Your task to perform on an android device: delete the emails in spam in the gmail app Image 0: 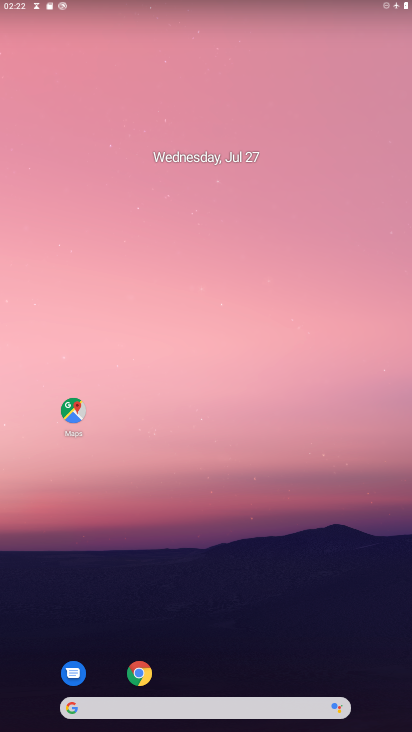
Step 0: drag from (249, 607) to (274, 258)
Your task to perform on an android device: delete the emails in spam in the gmail app Image 1: 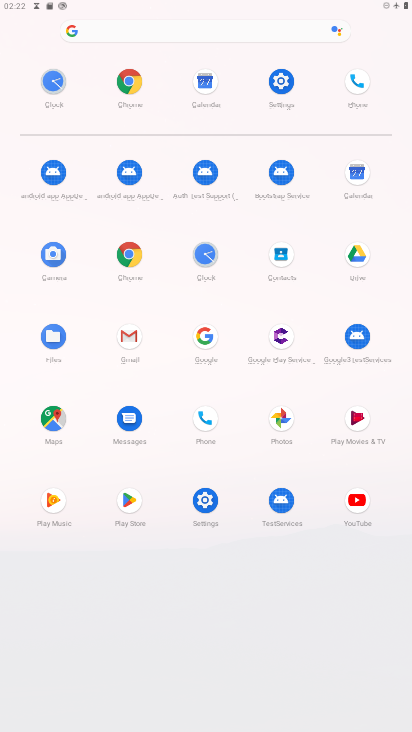
Step 1: click (119, 335)
Your task to perform on an android device: delete the emails in spam in the gmail app Image 2: 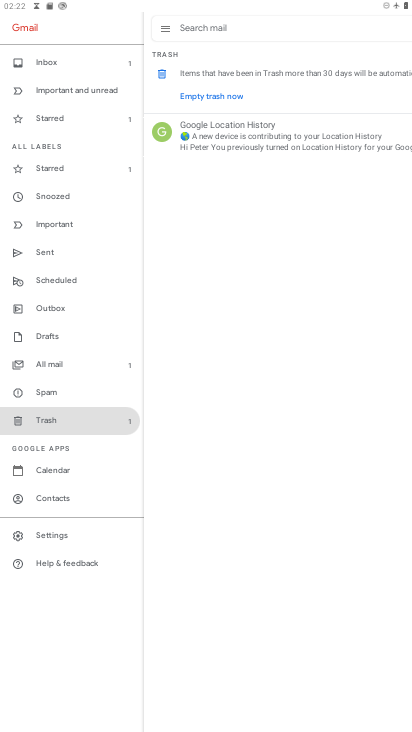
Step 2: click (62, 394)
Your task to perform on an android device: delete the emails in spam in the gmail app Image 3: 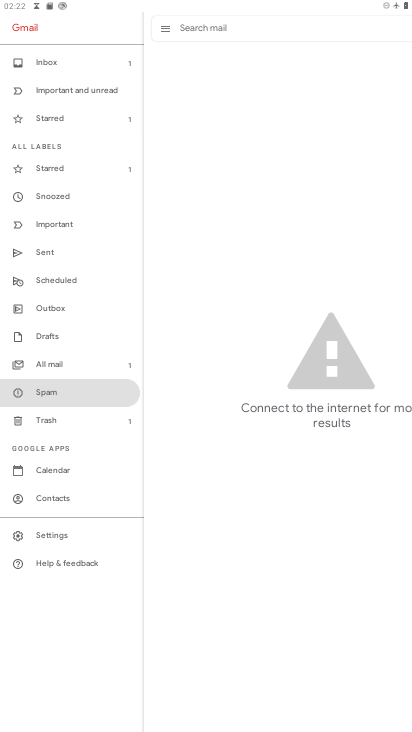
Step 3: task complete